Your task to perform on an android device: open chrome and create a bookmark for the current page Image 0: 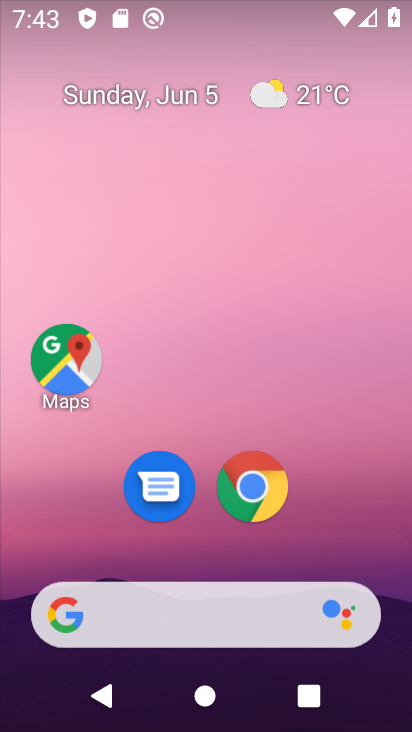
Step 0: click (253, 486)
Your task to perform on an android device: open chrome and create a bookmark for the current page Image 1: 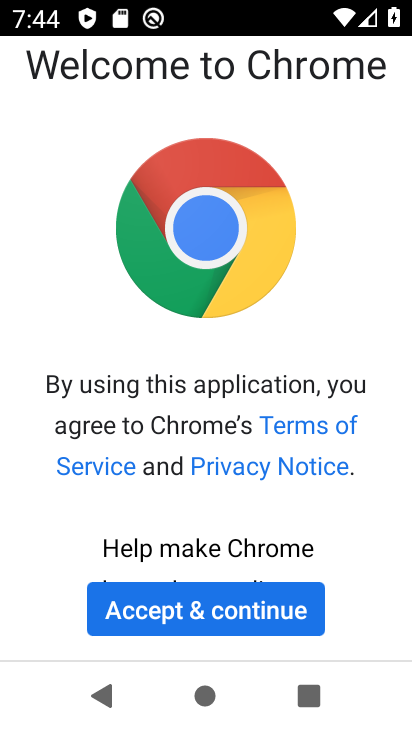
Step 1: click (243, 600)
Your task to perform on an android device: open chrome and create a bookmark for the current page Image 2: 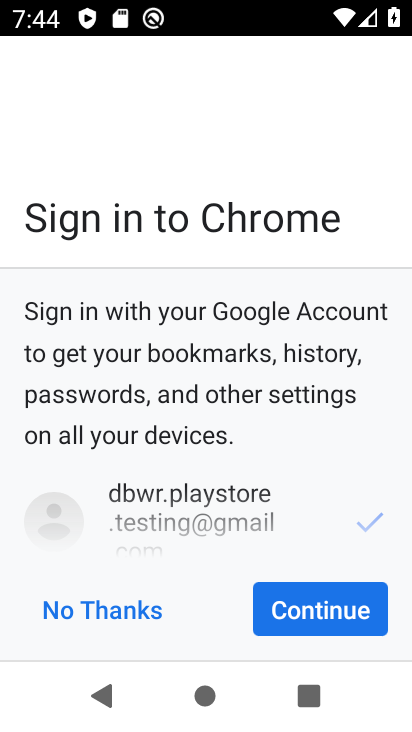
Step 2: click (321, 590)
Your task to perform on an android device: open chrome and create a bookmark for the current page Image 3: 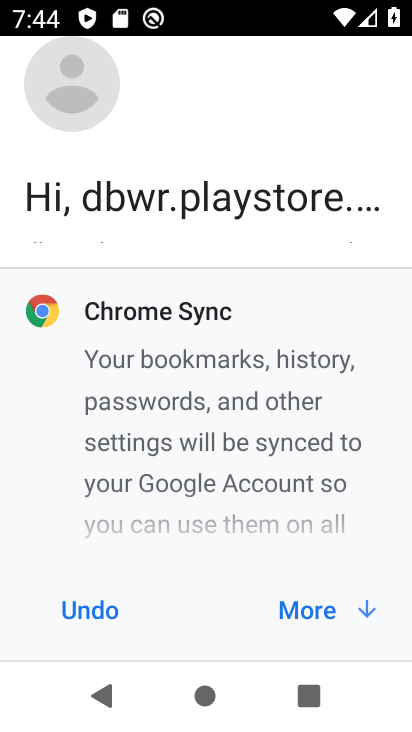
Step 3: click (325, 625)
Your task to perform on an android device: open chrome and create a bookmark for the current page Image 4: 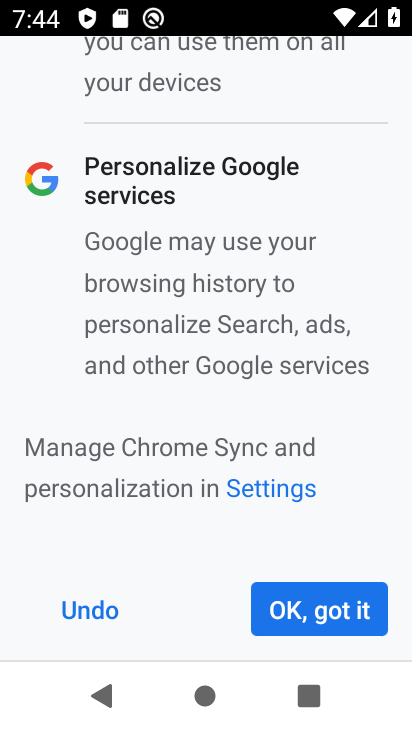
Step 4: click (325, 625)
Your task to perform on an android device: open chrome and create a bookmark for the current page Image 5: 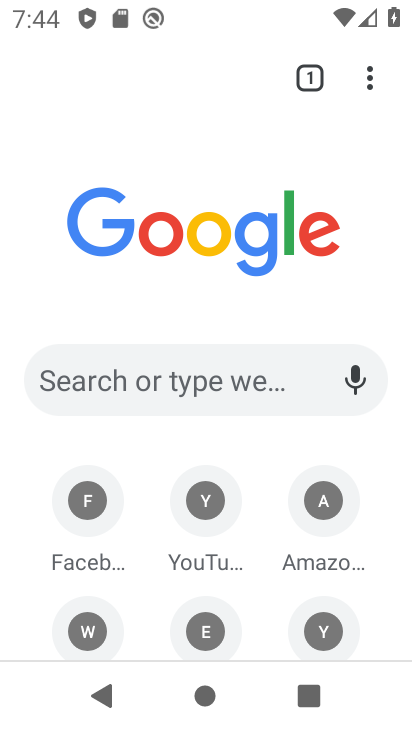
Step 5: task complete